Your task to perform on an android device: Search for Italian restaurants on Maps Image 0: 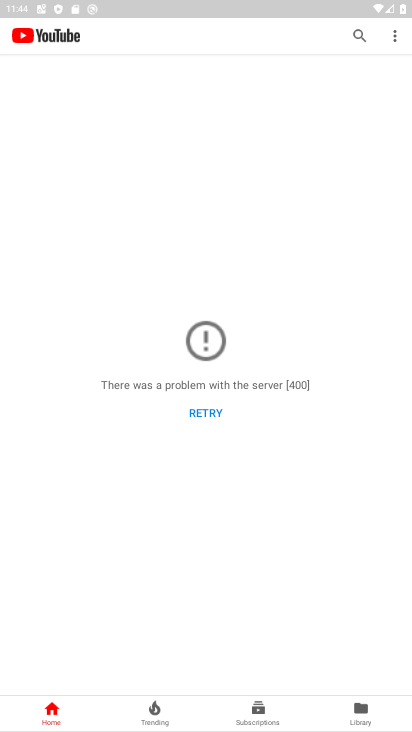
Step 0: press home button
Your task to perform on an android device: Search for Italian restaurants on Maps Image 1: 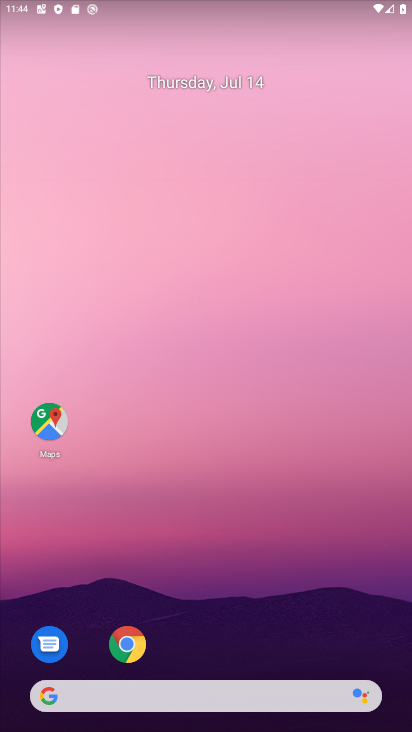
Step 1: drag from (245, 701) to (334, 137)
Your task to perform on an android device: Search for Italian restaurants on Maps Image 2: 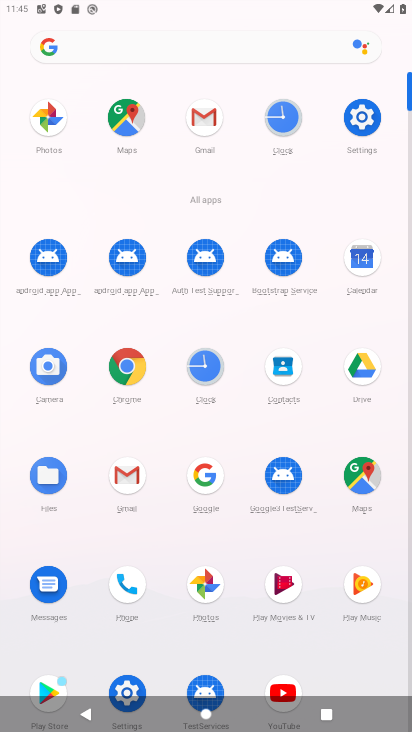
Step 2: click (352, 475)
Your task to perform on an android device: Search for Italian restaurants on Maps Image 3: 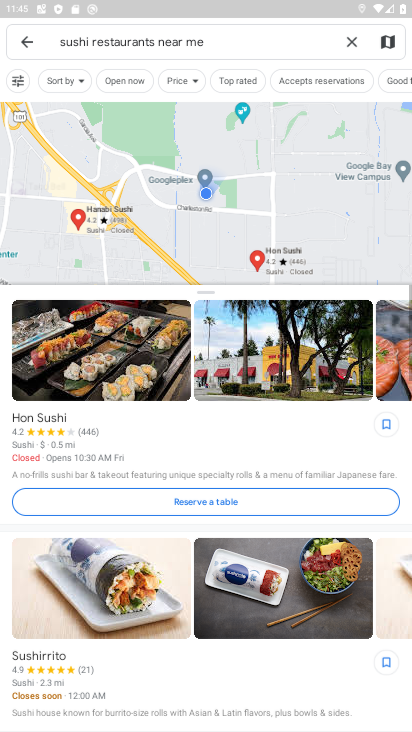
Step 3: click (352, 41)
Your task to perform on an android device: Search for Italian restaurants on Maps Image 4: 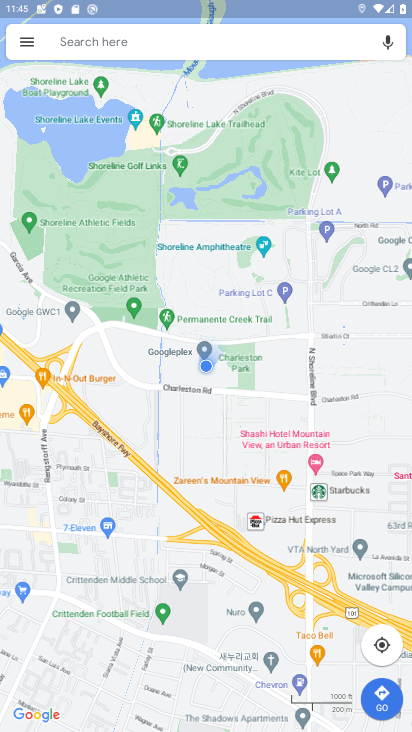
Step 4: click (319, 45)
Your task to perform on an android device: Search for Italian restaurants on Maps Image 5: 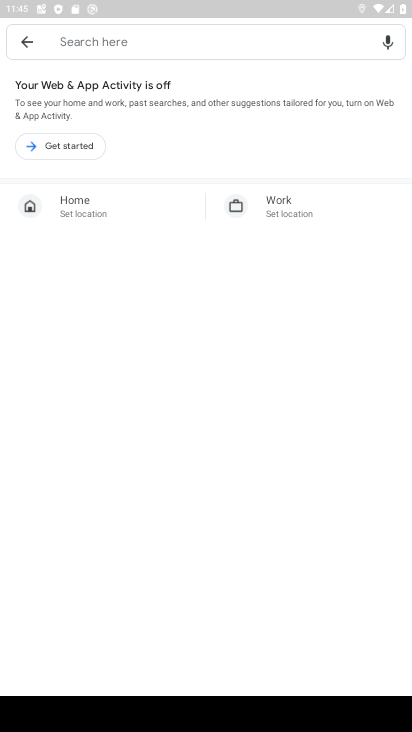
Step 5: type "Italian restaurants"
Your task to perform on an android device: Search for Italian restaurants on Maps Image 6: 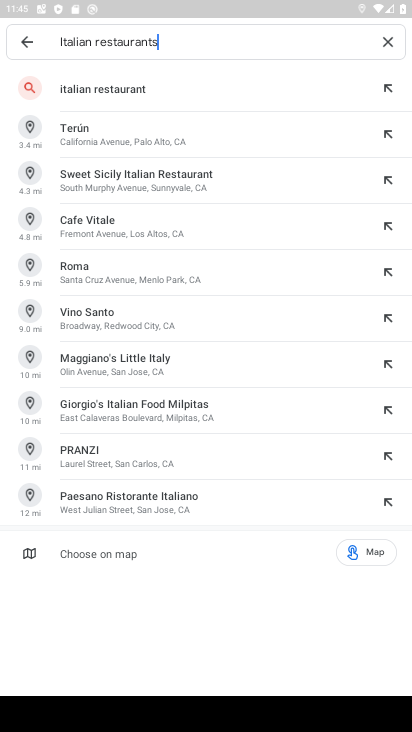
Step 6: click (140, 91)
Your task to perform on an android device: Search for Italian restaurants on Maps Image 7: 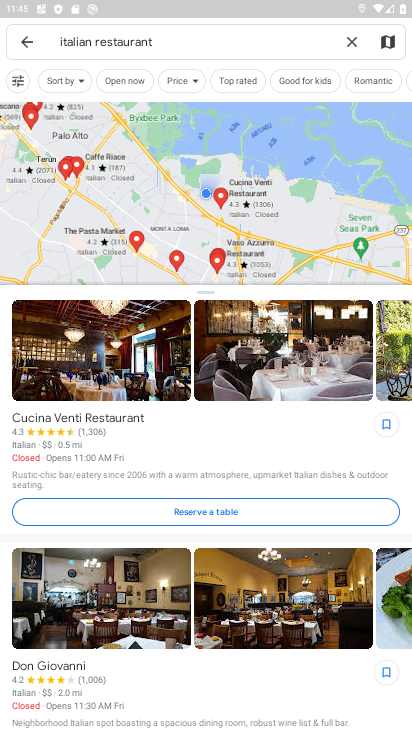
Step 7: task complete